Your task to perform on an android device: toggle airplane mode Image 0: 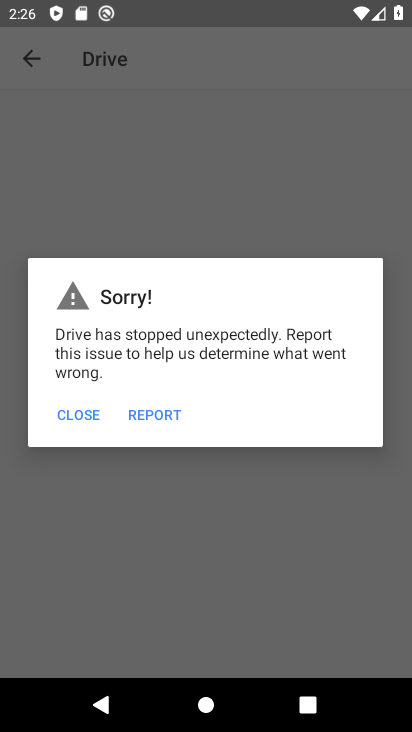
Step 0: press home button
Your task to perform on an android device: toggle airplane mode Image 1: 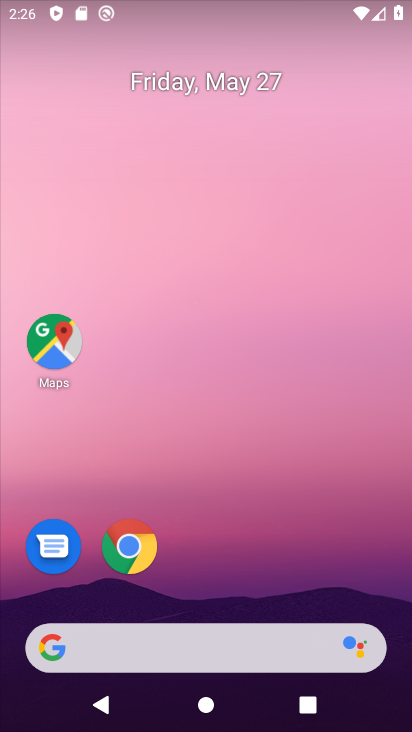
Step 1: drag from (223, 473) to (241, 146)
Your task to perform on an android device: toggle airplane mode Image 2: 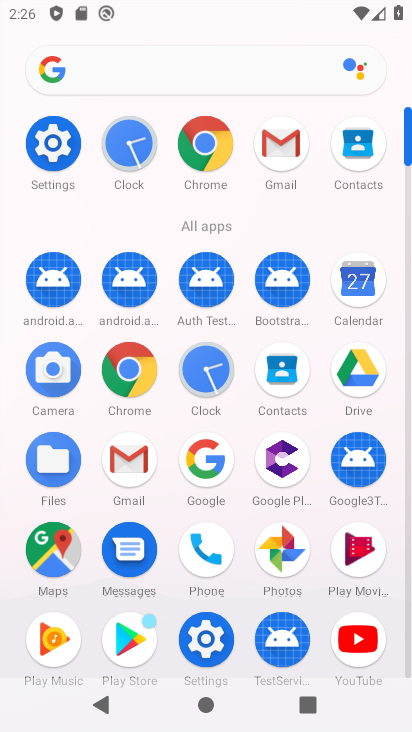
Step 2: click (198, 629)
Your task to perform on an android device: toggle airplane mode Image 3: 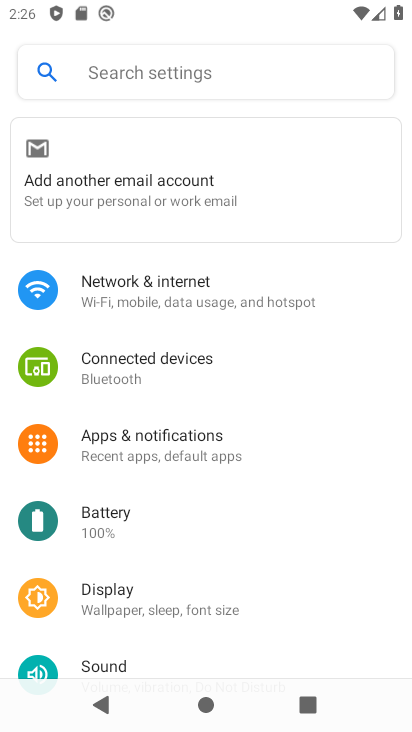
Step 3: click (186, 288)
Your task to perform on an android device: toggle airplane mode Image 4: 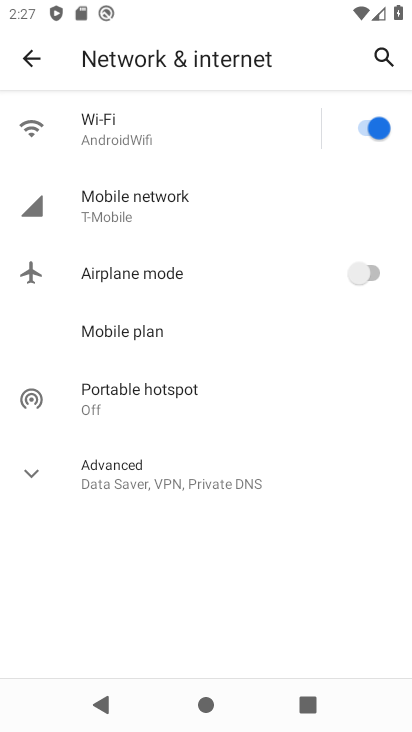
Step 4: click (365, 271)
Your task to perform on an android device: toggle airplane mode Image 5: 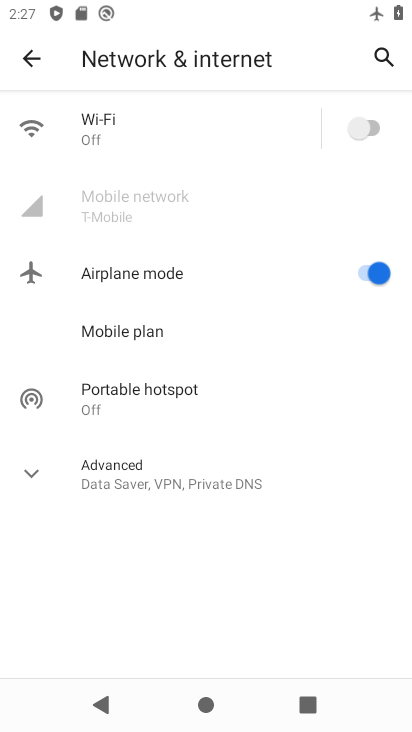
Step 5: task complete